Your task to perform on an android device: turn on priority inbox in the gmail app Image 0: 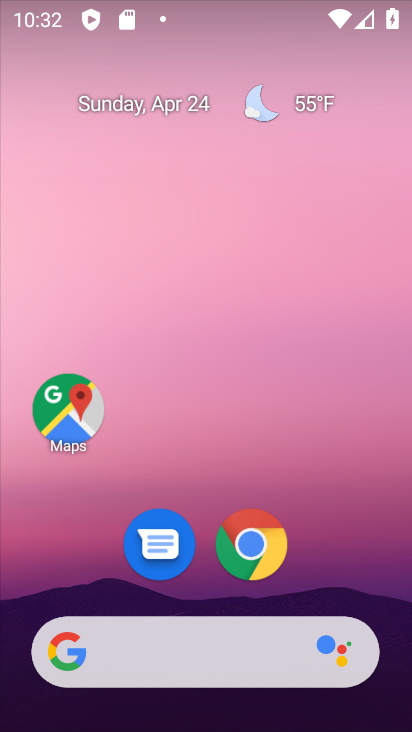
Step 0: drag from (338, 446) to (333, 155)
Your task to perform on an android device: turn on priority inbox in the gmail app Image 1: 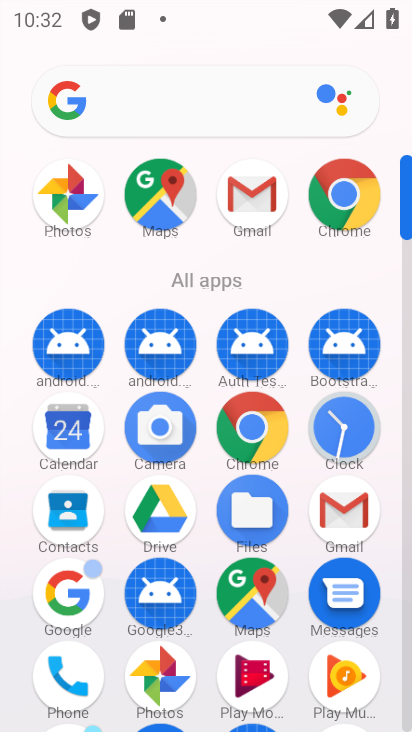
Step 1: click (252, 214)
Your task to perform on an android device: turn on priority inbox in the gmail app Image 2: 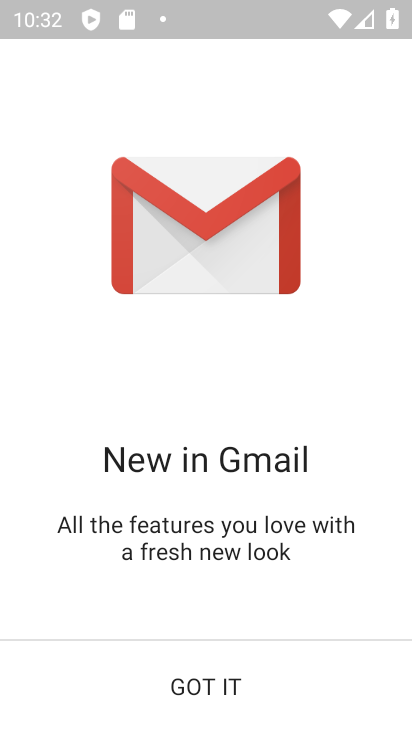
Step 2: click (191, 690)
Your task to perform on an android device: turn on priority inbox in the gmail app Image 3: 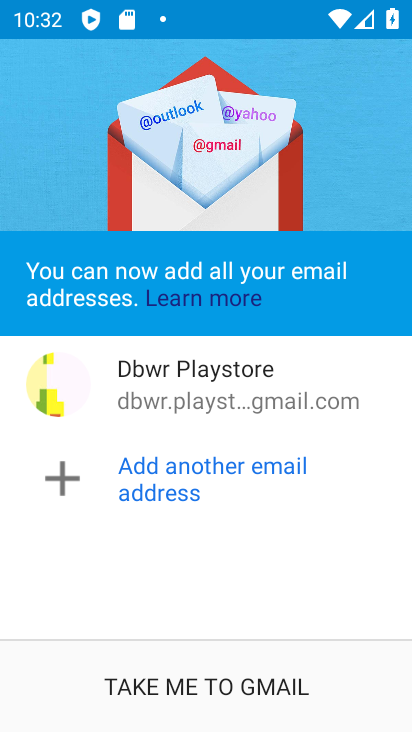
Step 3: click (191, 684)
Your task to perform on an android device: turn on priority inbox in the gmail app Image 4: 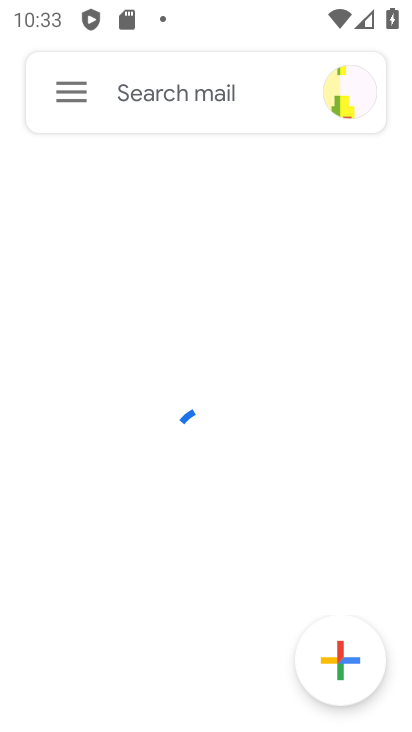
Step 4: click (80, 96)
Your task to perform on an android device: turn on priority inbox in the gmail app Image 5: 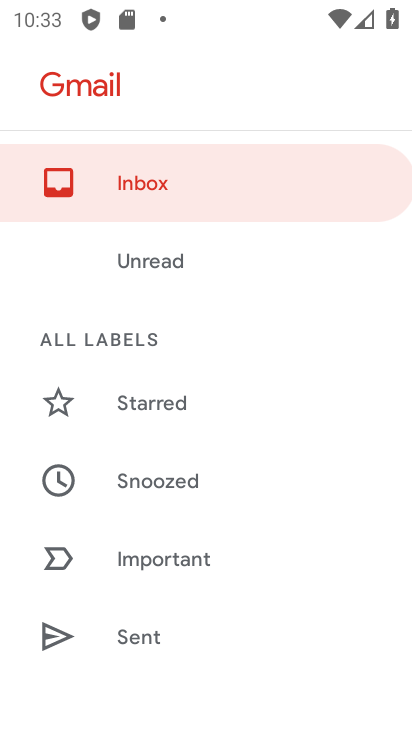
Step 5: drag from (189, 636) to (140, 201)
Your task to perform on an android device: turn on priority inbox in the gmail app Image 6: 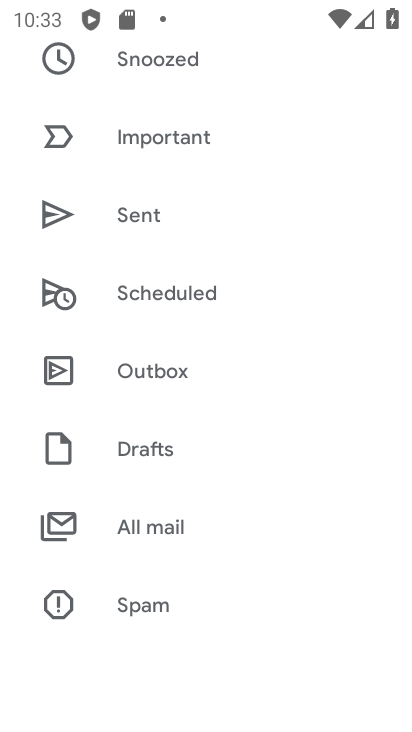
Step 6: drag from (190, 602) to (219, 231)
Your task to perform on an android device: turn on priority inbox in the gmail app Image 7: 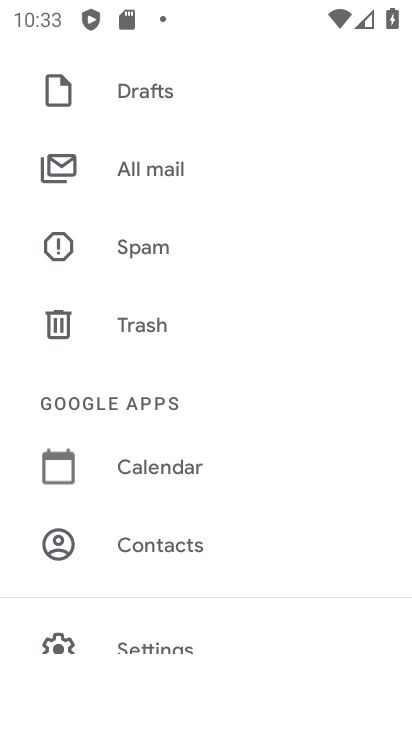
Step 7: click (174, 644)
Your task to perform on an android device: turn on priority inbox in the gmail app Image 8: 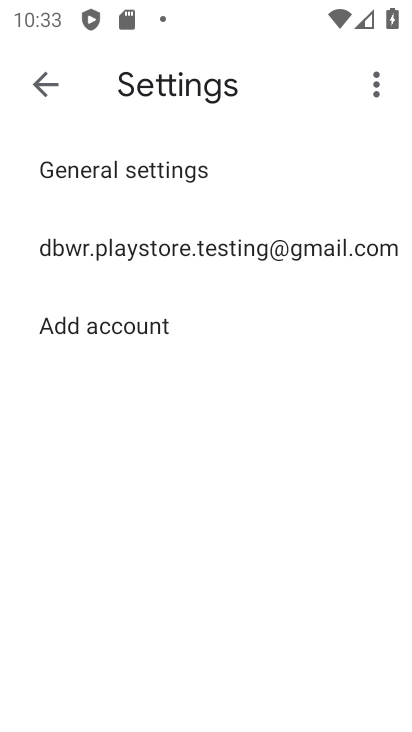
Step 8: click (223, 248)
Your task to perform on an android device: turn on priority inbox in the gmail app Image 9: 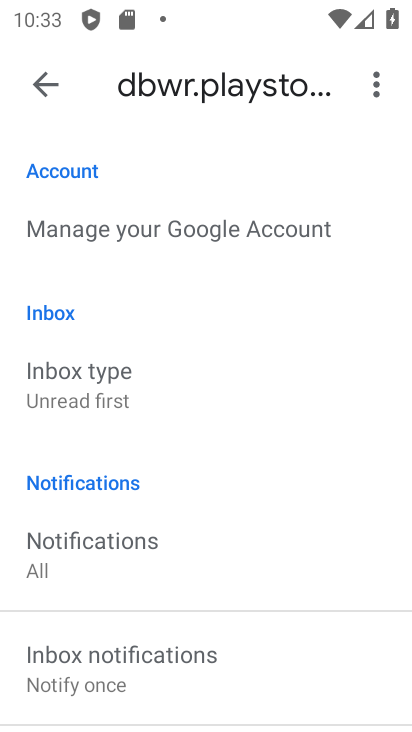
Step 9: click (83, 402)
Your task to perform on an android device: turn on priority inbox in the gmail app Image 10: 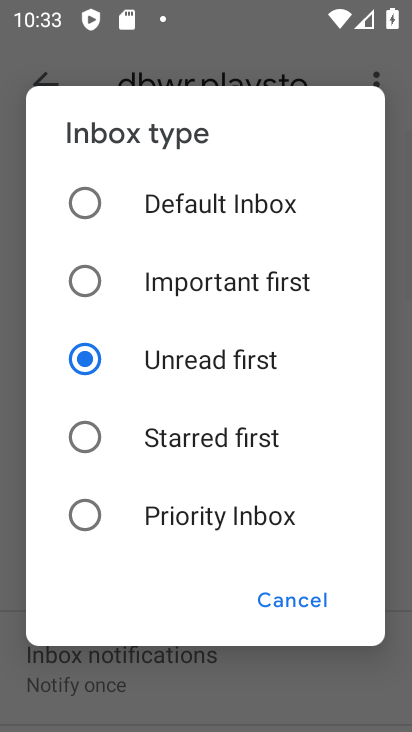
Step 10: click (81, 516)
Your task to perform on an android device: turn on priority inbox in the gmail app Image 11: 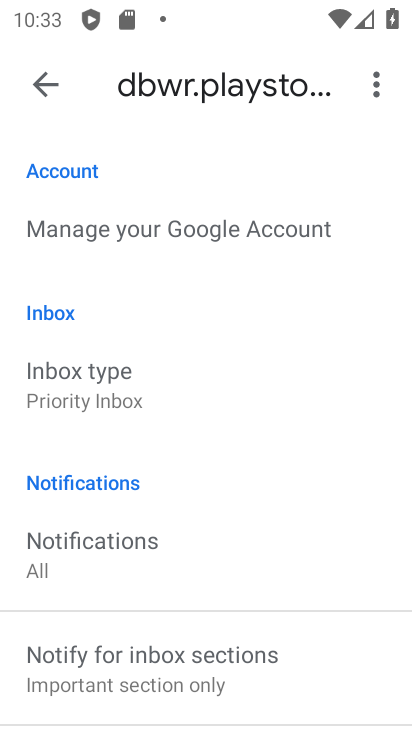
Step 11: task complete